Your task to perform on an android device: What's on my calendar tomorrow? Image 0: 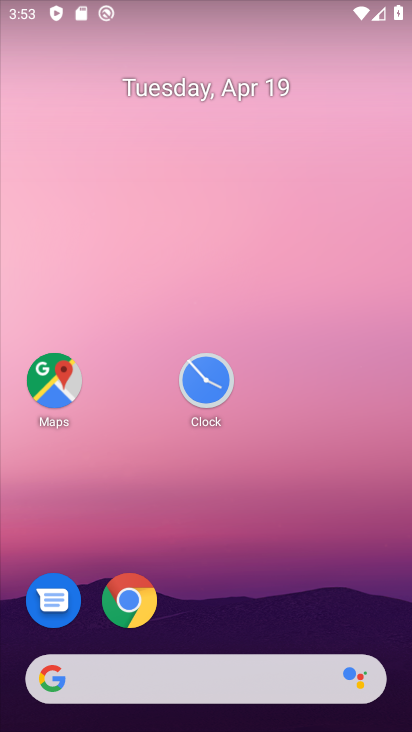
Step 0: drag from (178, 321) to (173, 223)
Your task to perform on an android device: What's on my calendar tomorrow? Image 1: 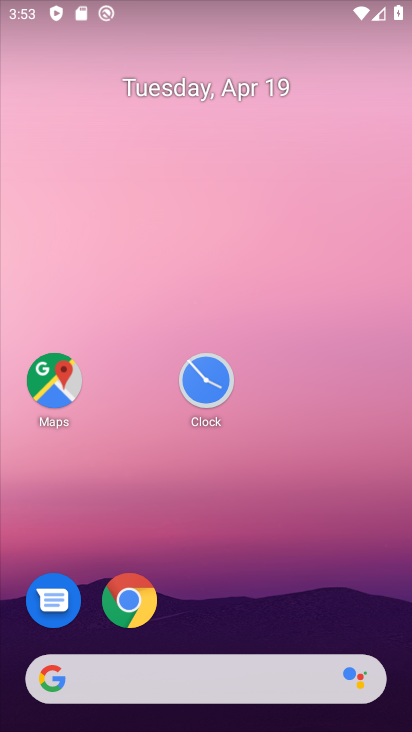
Step 1: drag from (341, 615) to (232, 132)
Your task to perform on an android device: What's on my calendar tomorrow? Image 2: 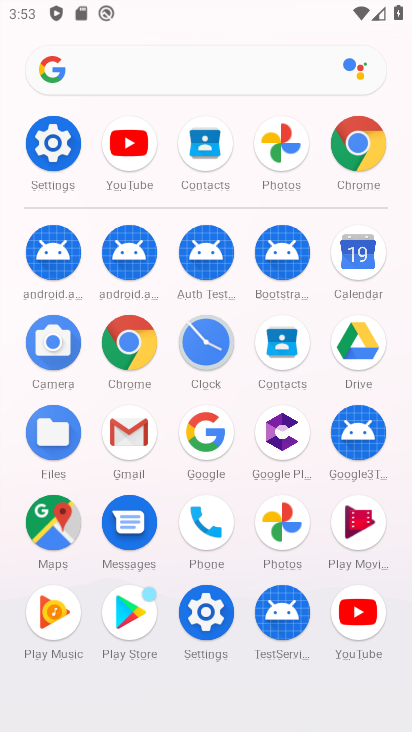
Step 2: click (361, 230)
Your task to perform on an android device: What's on my calendar tomorrow? Image 3: 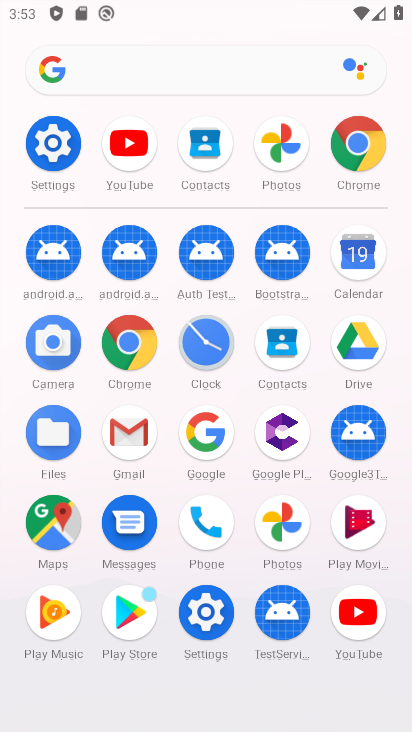
Step 3: click (359, 257)
Your task to perform on an android device: What's on my calendar tomorrow? Image 4: 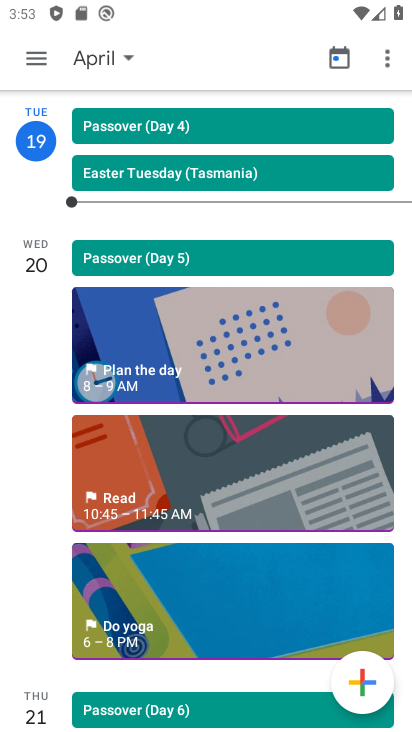
Step 4: click (137, 253)
Your task to perform on an android device: What's on my calendar tomorrow? Image 5: 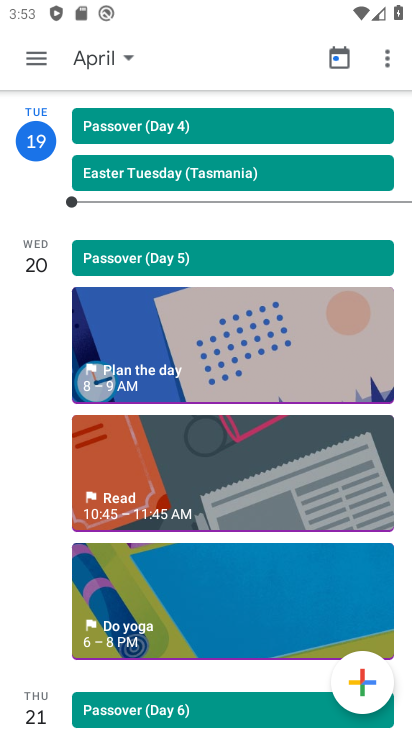
Step 5: drag from (148, 525) to (109, 201)
Your task to perform on an android device: What's on my calendar tomorrow? Image 6: 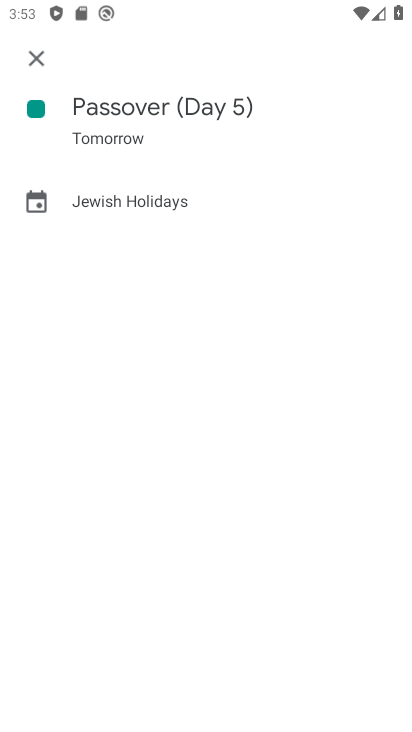
Step 6: click (36, 54)
Your task to perform on an android device: What's on my calendar tomorrow? Image 7: 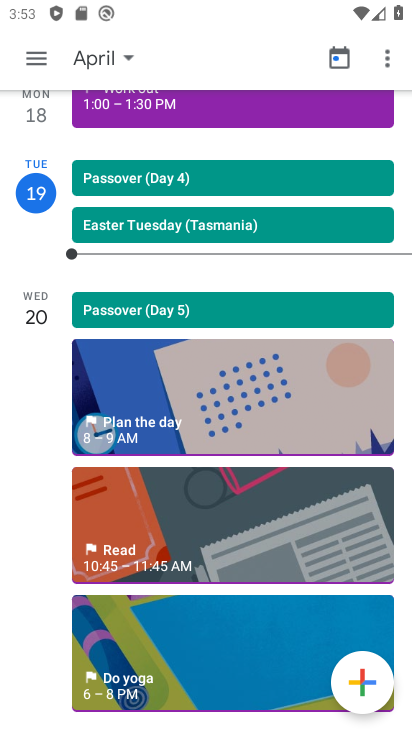
Step 7: drag from (137, 611) to (150, 97)
Your task to perform on an android device: What's on my calendar tomorrow? Image 8: 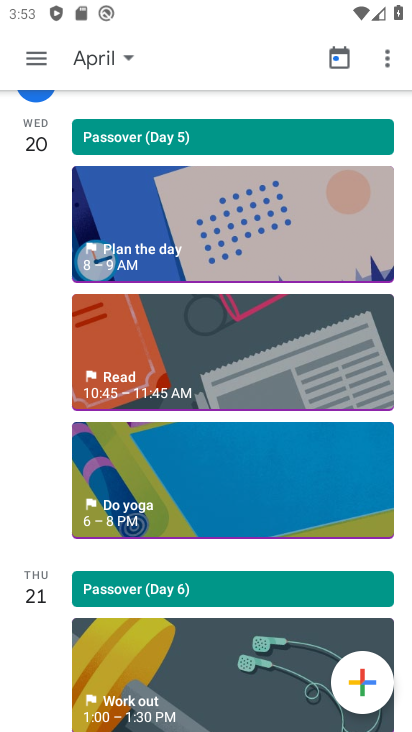
Step 8: drag from (147, 513) to (141, 135)
Your task to perform on an android device: What's on my calendar tomorrow? Image 9: 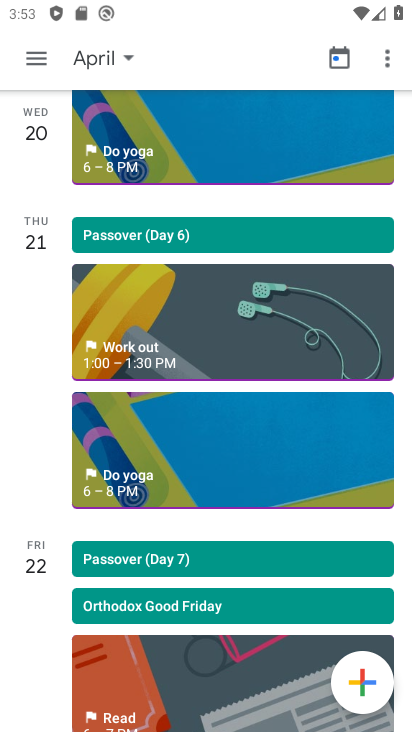
Step 9: drag from (127, 423) to (138, 106)
Your task to perform on an android device: What's on my calendar tomorrow? Image 10: 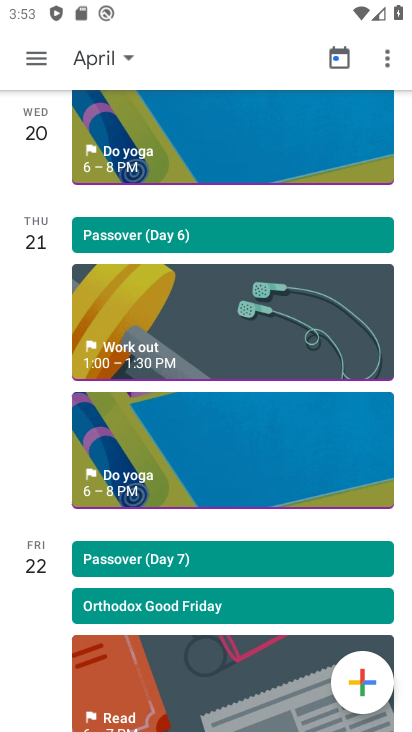
Step 10: click (124, 117)
Your task to perform on an android device: What's on my calendar tomorrow? Image 11: 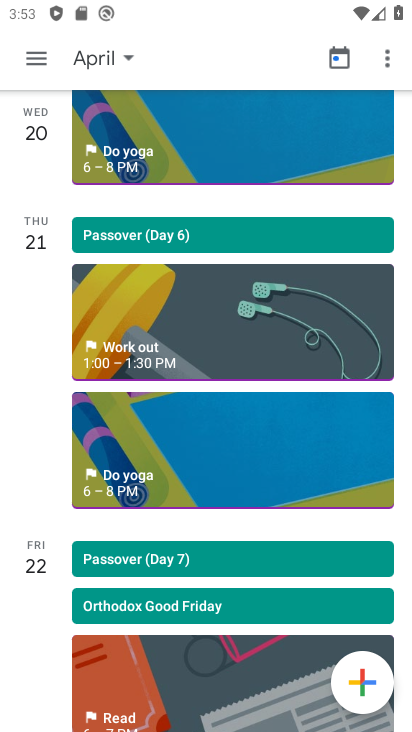
Step 11: task complete